Your task to perform on an android device: change the clock display to show seconds Image 0: 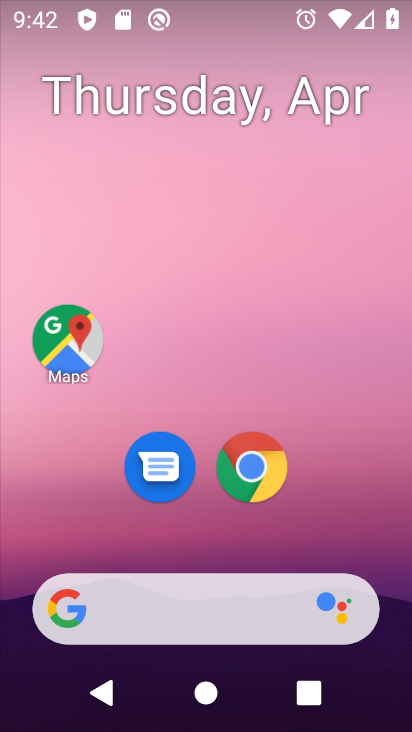
Step 0: drag from (374, 528) to (360, 236)
Your task to perform on an android device: change the clock display to show seconds Image 1: 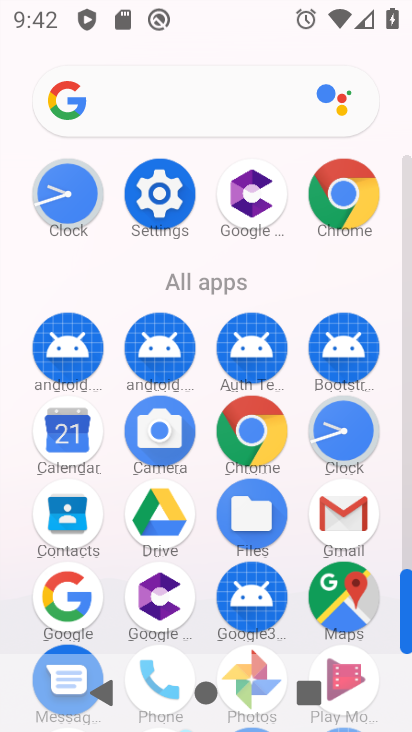
Step 1: click (329, 437)
Your task to perform on an android device: change the clock display to show seconds Image 2: 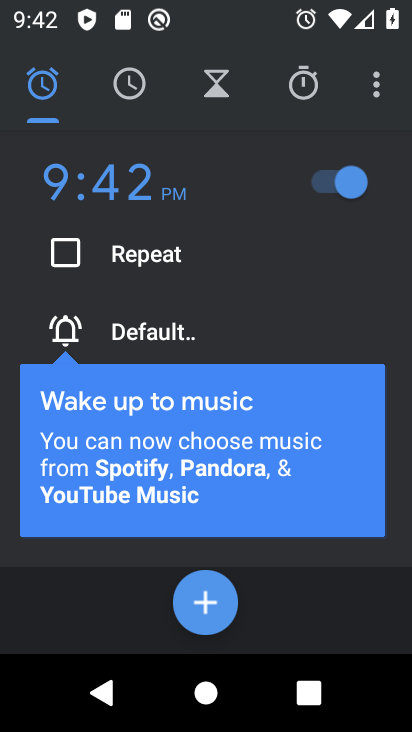
Step 2: click (384, 83)
Your task to perform on an android device: change the clock display to show seconds Image 3: 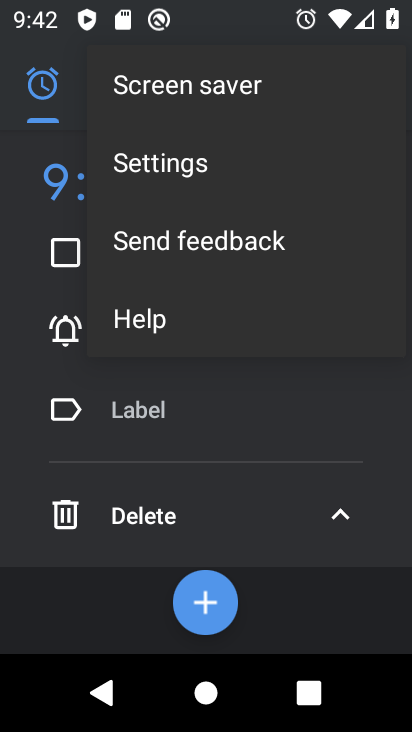
Step 3: click (278, 171)
Your task to perform on an android device: change the clock display to show seconds Image 4: 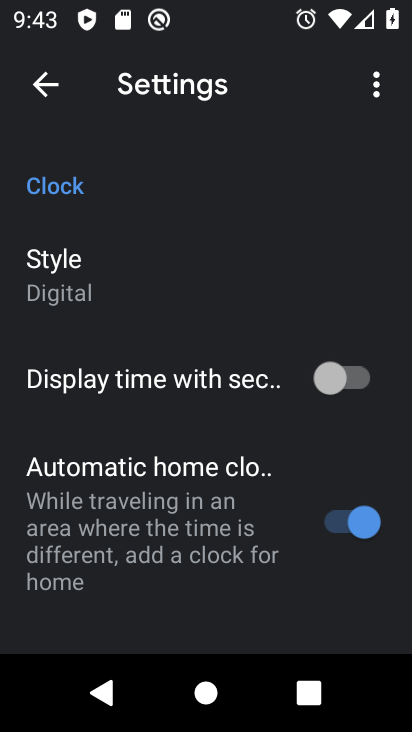
Step 4: click (344, 371)
Your task to perform on an android device: change the clock display to show seconds Image 5: 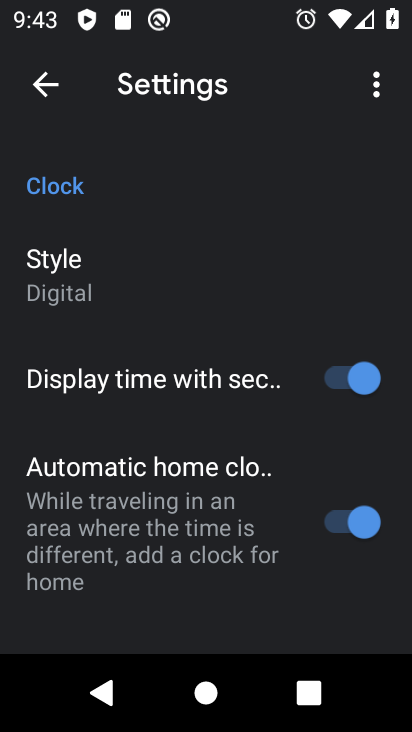
Step 5: task complete